Your task to perform on an android device: turn smart compose on in the gmail app Image 0: 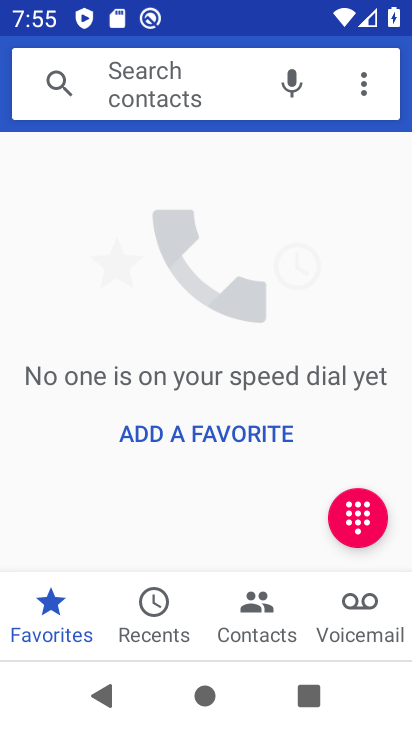
Step 0: press home button
Your task to perform on an android device: turn smart compose on in the gmail app Image 1: 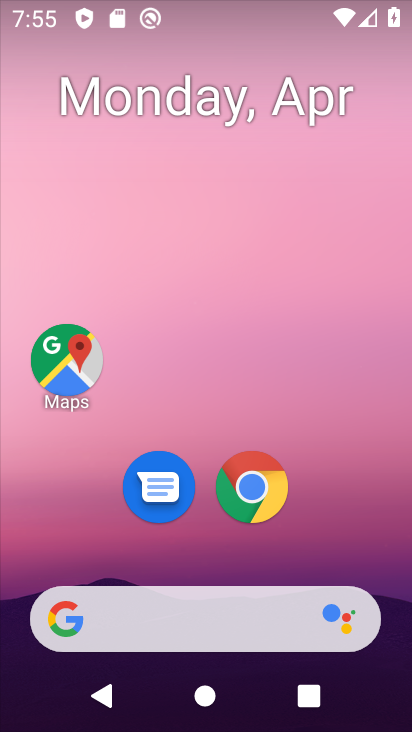
Step 1: drag from (308, 545) to (282, 42)
Your task to perform on an android device: turn smart compose on in the gmail app Image 2: 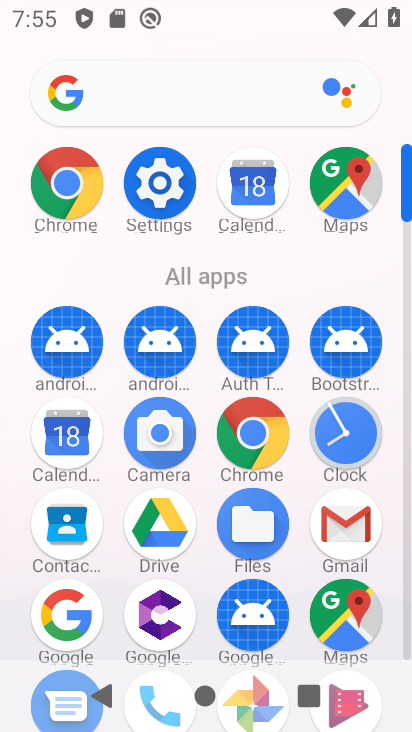
Step 2: click (346, 537)
Your task to perform on an android device: turn smart compose on in the gmail app Image 3: 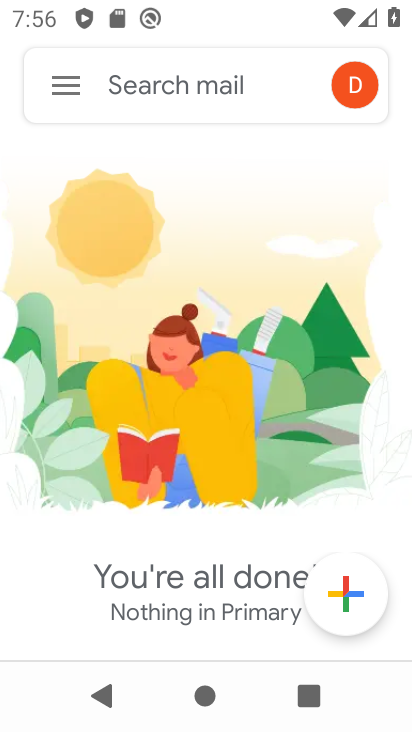
Step 3: click (65, 85)
Your task to perform on an android device: turn smart compose on in the gmail app Image 4: 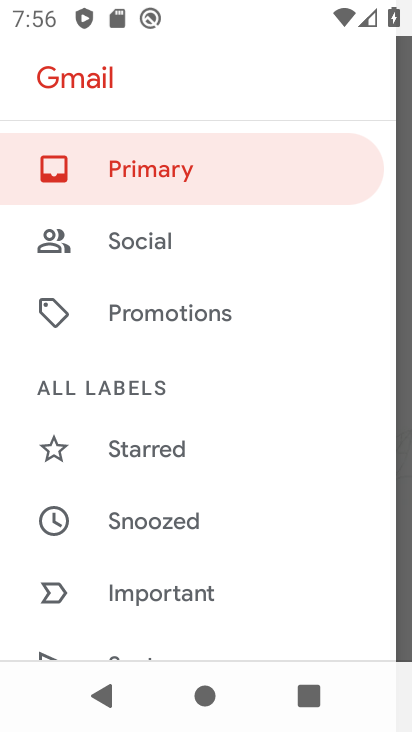
Step 4: drag from (342, 488) to (349, 317)
Your task to perform on an android device: turn smart compose on in the gmail app Image 5: 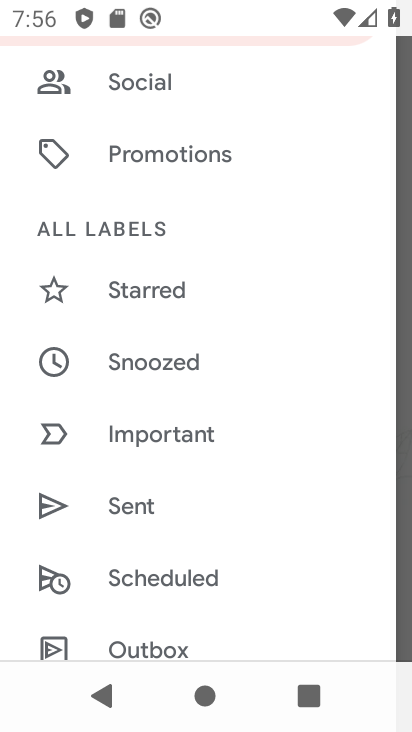
Step 5: drag from (350, 534) to (353, 346)
Your task to perform on an android device: turn smart compose on in the gmail app Image 6: 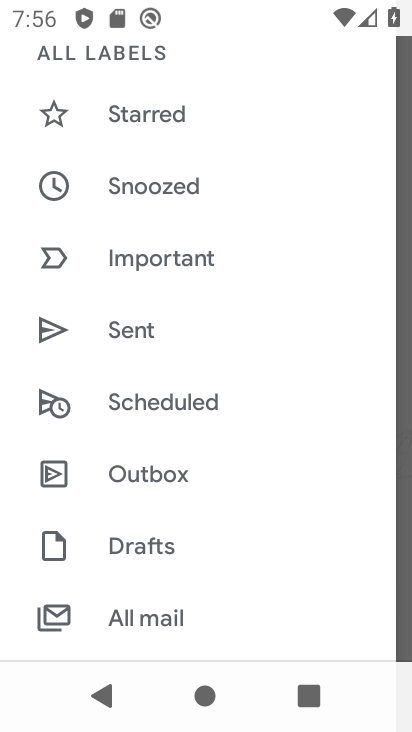
Step 6: drag from (322, 551) to (335, 283)
Your task to perform on an android device: turn smart compose on in the gmail app Image 7: 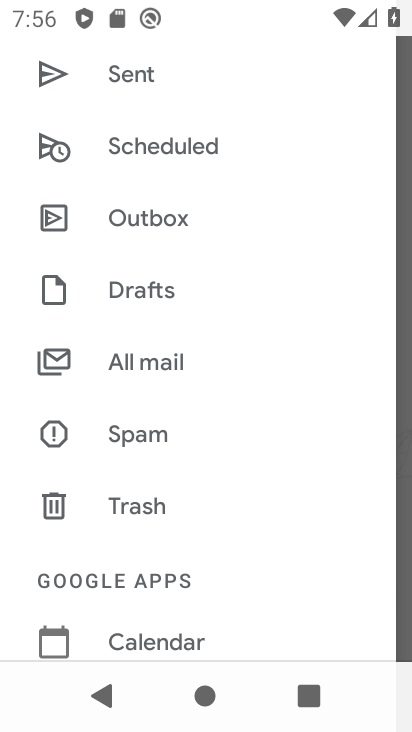
Step 7: drag from (308, 555) to (343, 206)
Your task to perform on an android device: turn smart compose on in the gmail app Image 8: 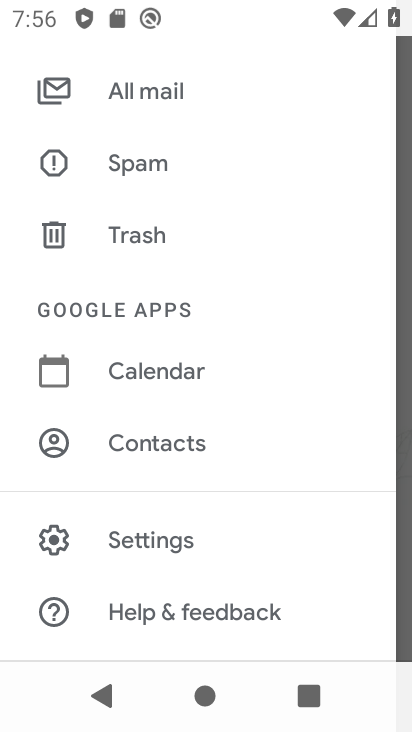
Step 8: click (191, 544)
Your task to perform on an android device: turn smart compose on in the gmail app Image 9: 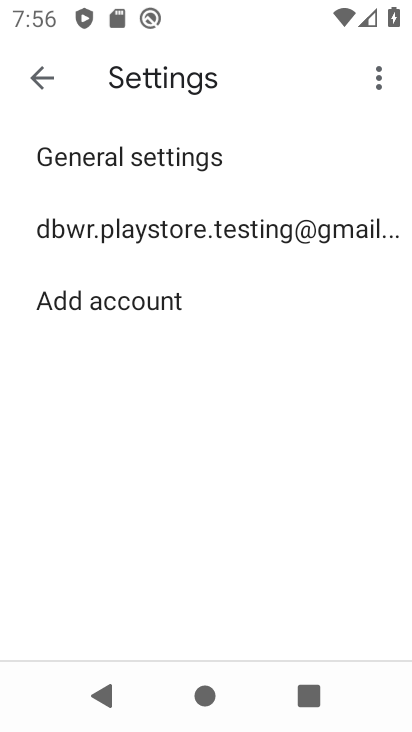
Step 9: click (251, 221)
Your task to perform on an android device: turn smart compose on in the gmail app Image 10: 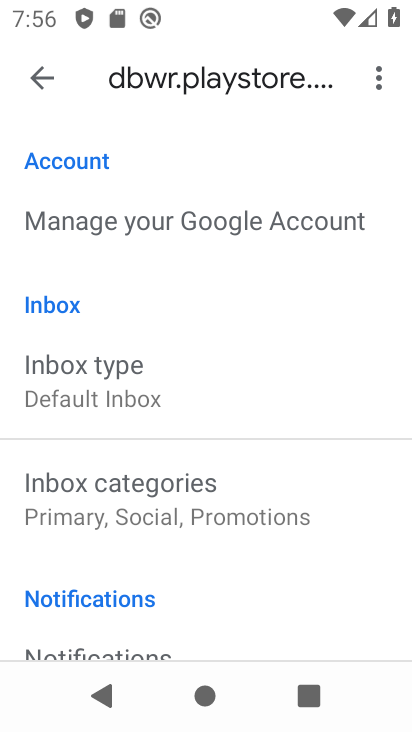
Step 10: task complete